Your task to perform on an android device: delete a single message in the gmail app Image 0: 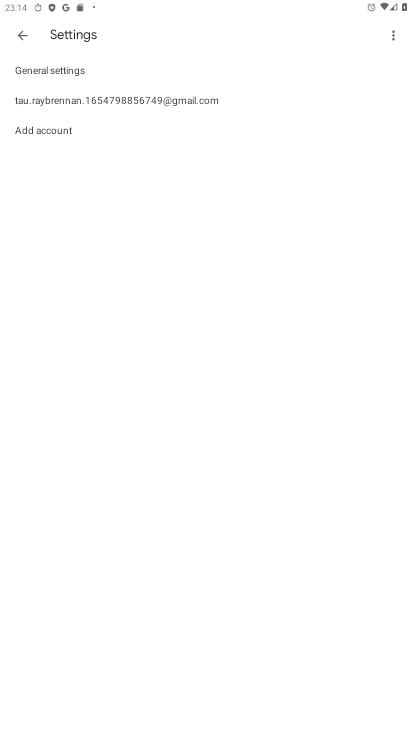
Step 0: press home button
Your task to perform on an android device: delete a single message in the gmail app Image 1: 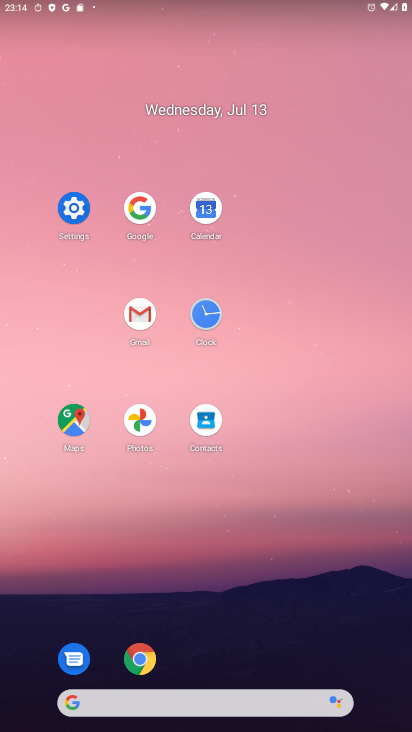
Step 1: click (140, 316)
Your task to perform on an android device: delete a single message in the gmail app Image 2: 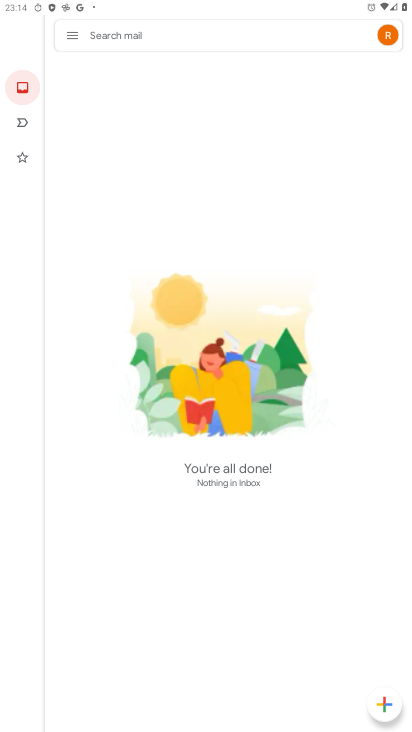
Step 2: click (63, 43)
Your task to perform on an android device: delete a single message in the gmail app Image 3: 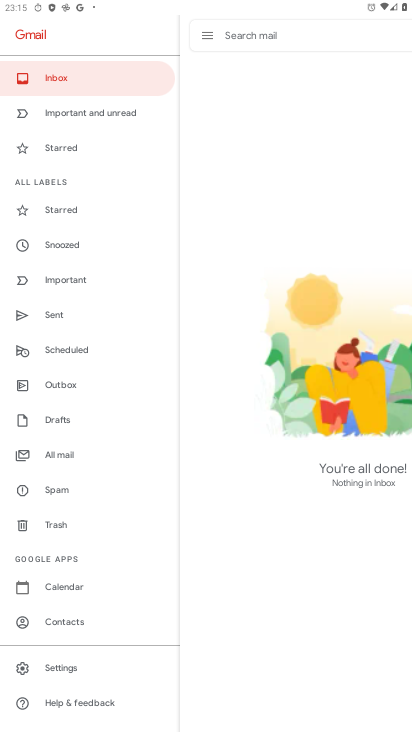
Step 3: click (73, 453)
Your task to perform on an android device: delete a single message in the gmail app Image 4: 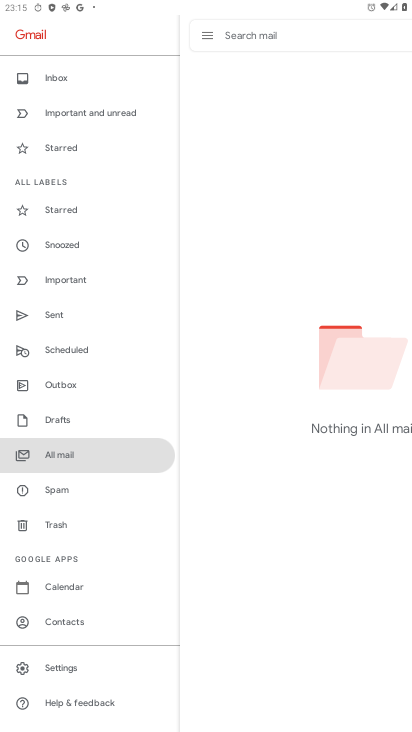
Step 4: task complete